Your task to perform on an android device: open the mobile data screen to see how much data has been used Image 0: 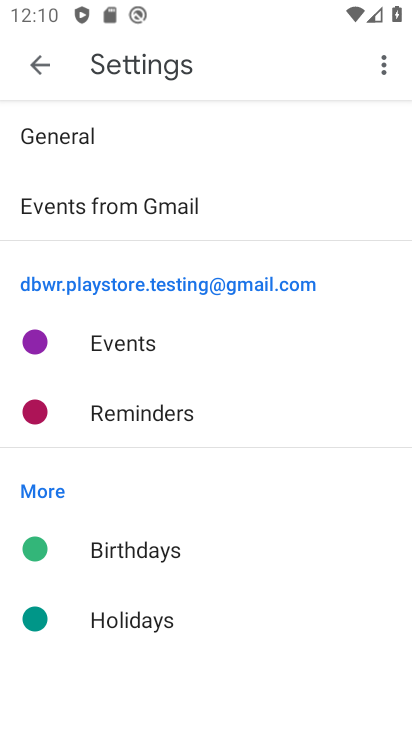
Step 0: press home button
Your task to perform on an android device: open the mobile data screen to see how much data has been used Image 1: 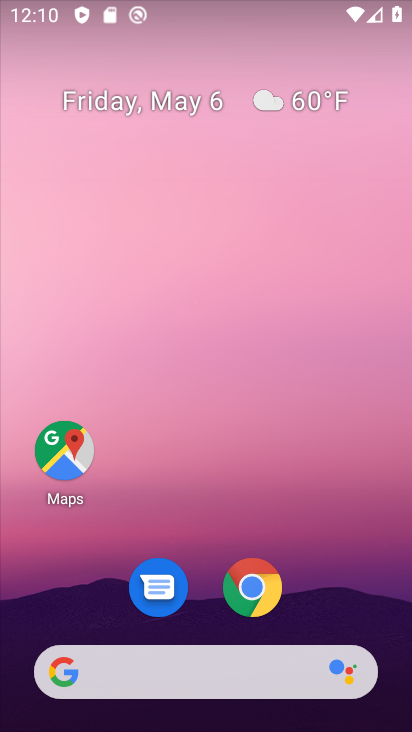
Step 1: drag from (385, 590) to (386, 213)
Your task to perform on an android device: open the mobile data screen to see how much data has been used Image 2: 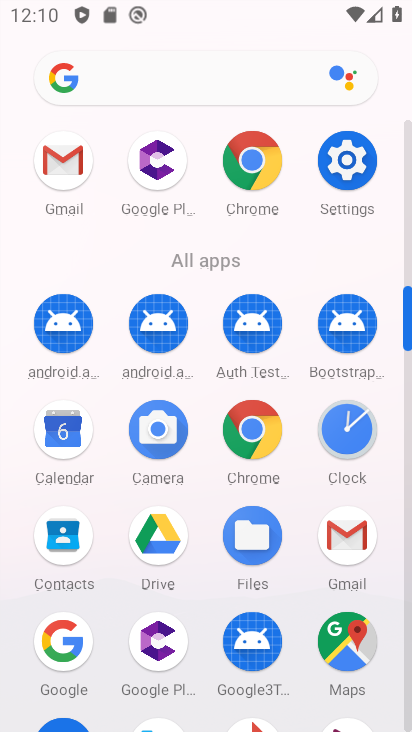
Step 2: click (355, 164)
Your task to perform on an android device: open the mobile data screen to see how much data has been used Image 3: 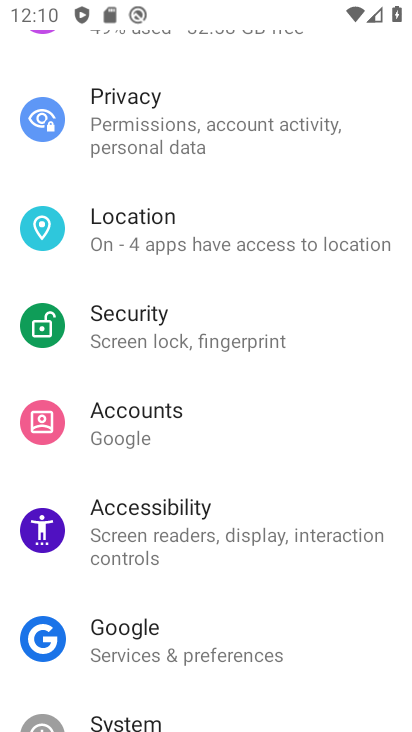
Step 3: drag from (334, 100) to (365, 587)
Your task to perform on an android device: open the mobile data screen to see how much data has been used Image 4: 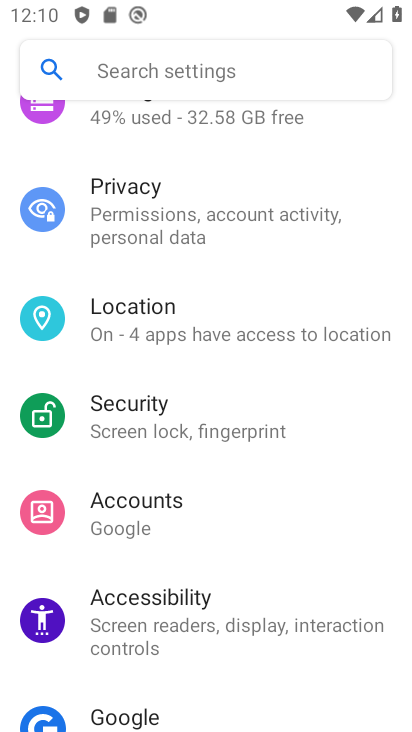
Step 4: drag from (377, 144) to (403, 427)
Your task to perform on an android device: open the mobile data screen to see how much data has been used Image 5: 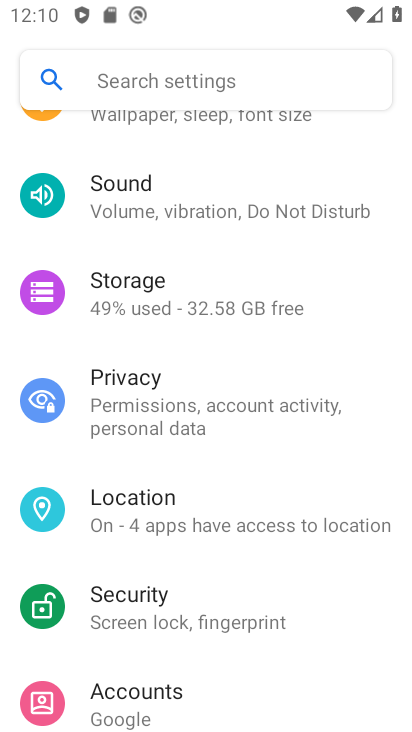
Step 5: drag from (366, 141) to (296, 579)
Your task to perform on an android device: open the mobile data screen to see how much data has been used Image 6: 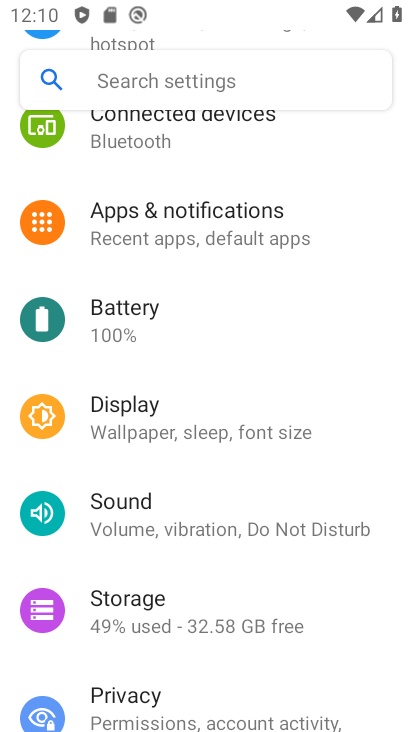
Step 6: drag from (364, 163) to (387, 617)
Your task to perform on an android device: open the mobile data screen to see how much data has been used Image 7: 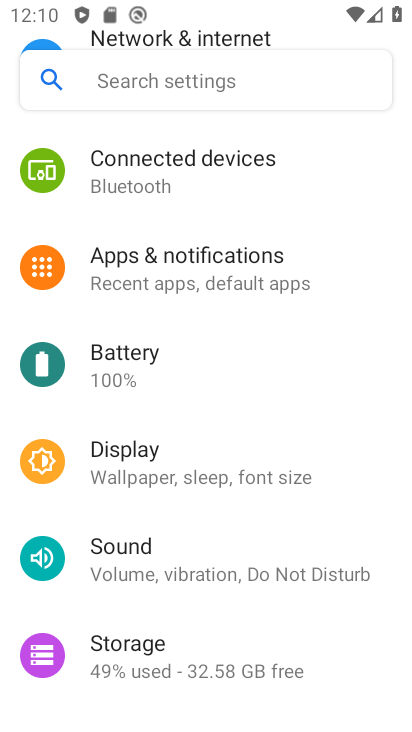
Step 7: drag from (369, 209) to (395, 537)
Your task to perform on an android device: open the mobile data screen to see how much data has been used Image 8: 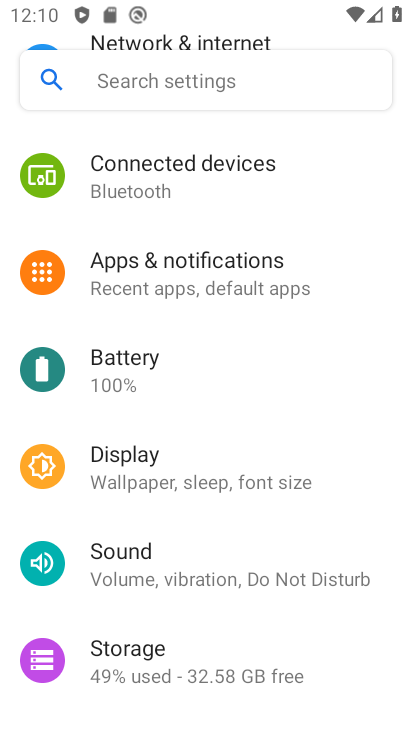
Step 8: click (205, 40)
Your task to perform on an android device: open the mobile data screen to see how much data has been used Image 9: 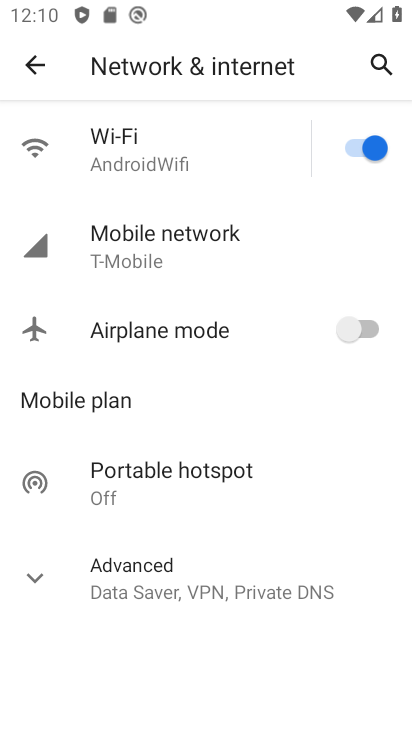
Step 9: click (163, 249)
Your task to perform on an android device: open the mobile data screen to see how much data has been used Image 10: 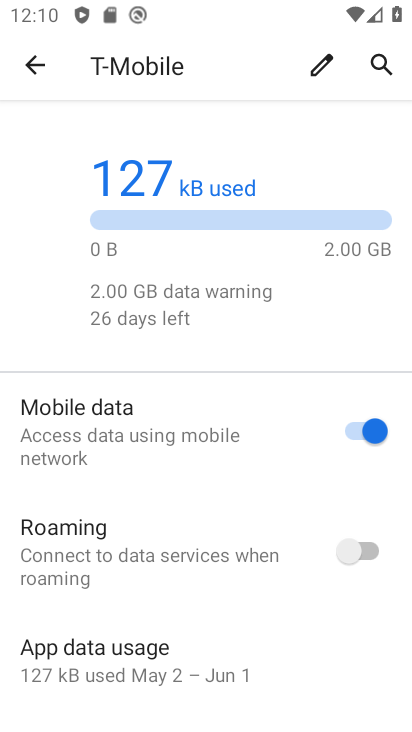
Step 10: task complete